Your task to perform on an android device: Open calendar and show me the first week of next month Image 0: 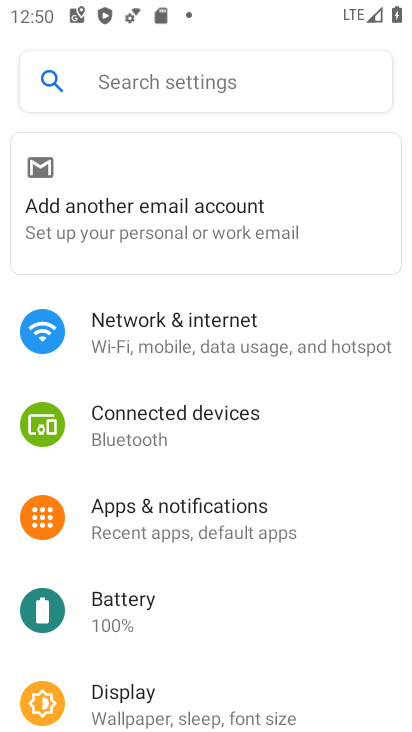
Step 0: press home button
Your task to perform on an android device: Open calendar and show me the first week of next month Image 1: 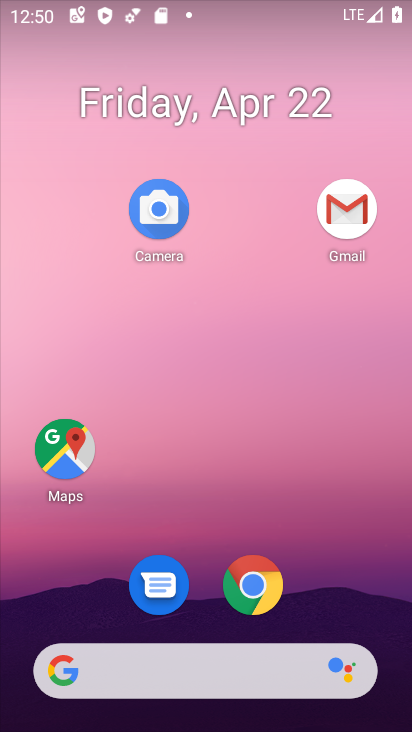
Step 1: drag from (317, 573) to (297, 162)
Your task to perform on an android device: Open calendar and show me the first week of next month Image 2: 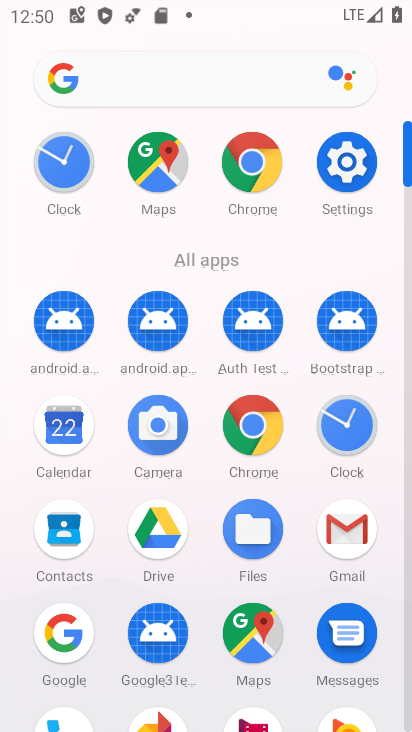
Step 2: click (71, 430)
Your task to perform on an android device: Open calendar and show me the first week of next month Image 3: 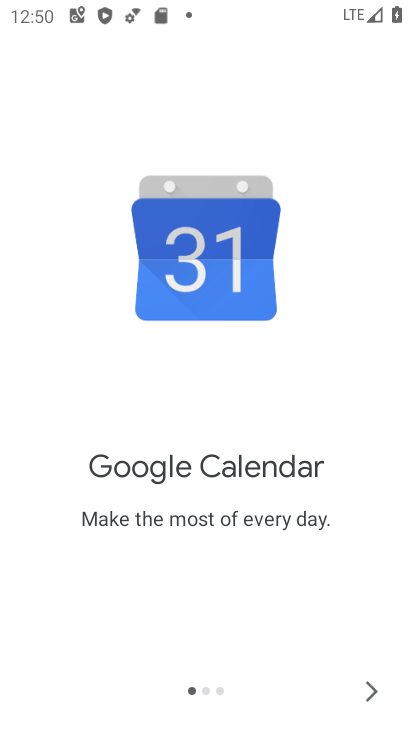
Step 3: click (366, 693)
Your task to perform on an android device: Open calendar and show me the first week of next month Image 4: 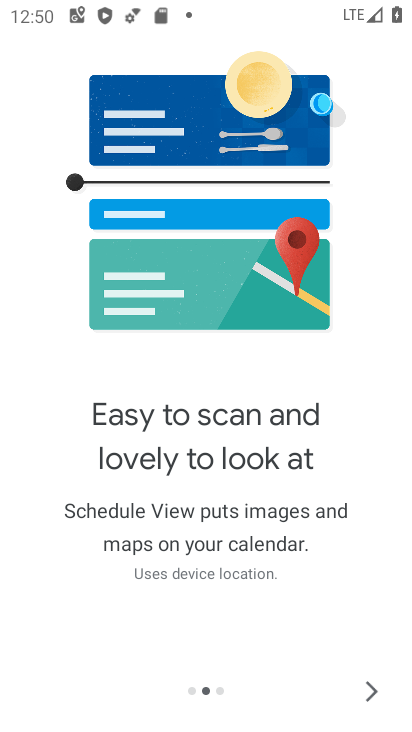
Step 4: click (366, 693)
Your task to perform on an android device: Open calendar and show me the first week of next month Image 5: 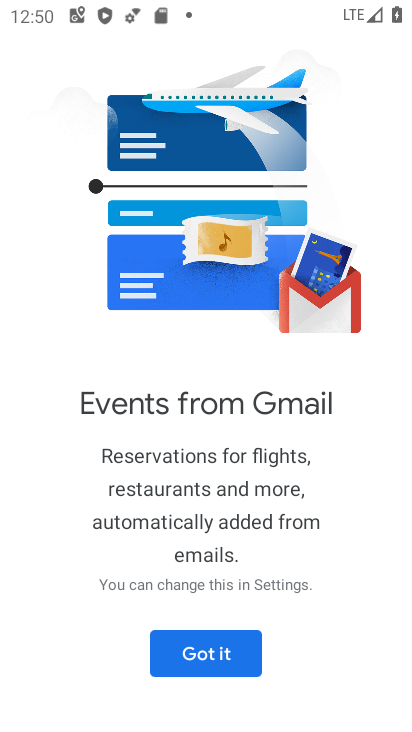
Step 5: click (221, 647)
Your task to perform on an android device: Open calendar and show me the first week of next month Image 6: 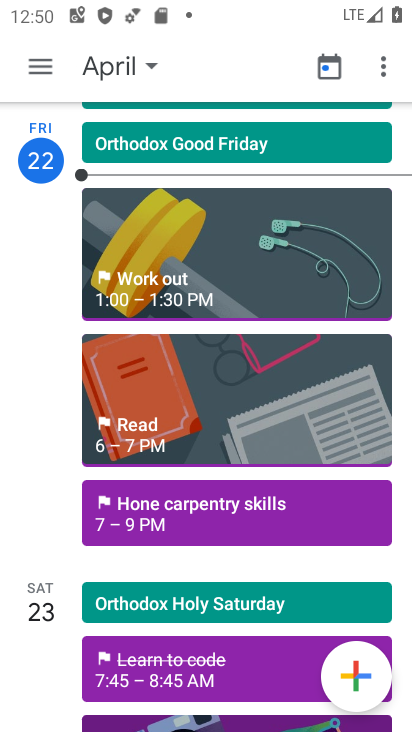
Step 6: click (46, 66)
Your task to perform on an android device: Open calendar and show me the first week of next month Image 7: 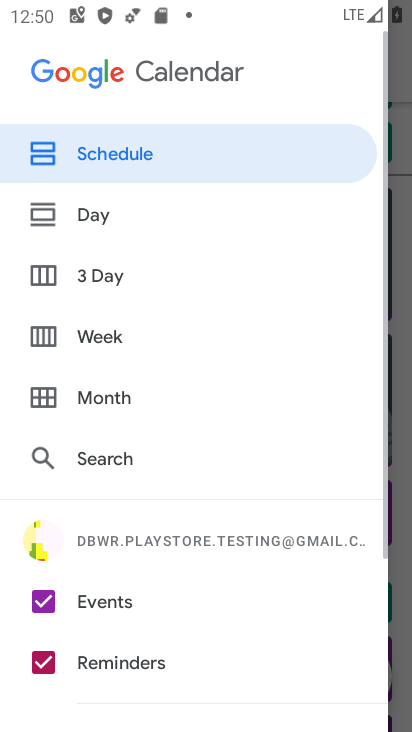
Step 7: click (105, 330)
Your task to perform on an android device: Open calendar and show me the first week of next month Image 8: 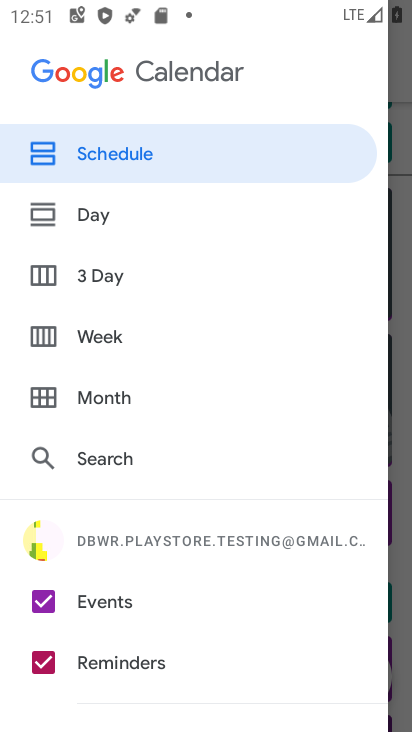
Step 8: click (105, 330)
Your task to perform on an android device: Open calendar and show me the first week of next month Image 9: 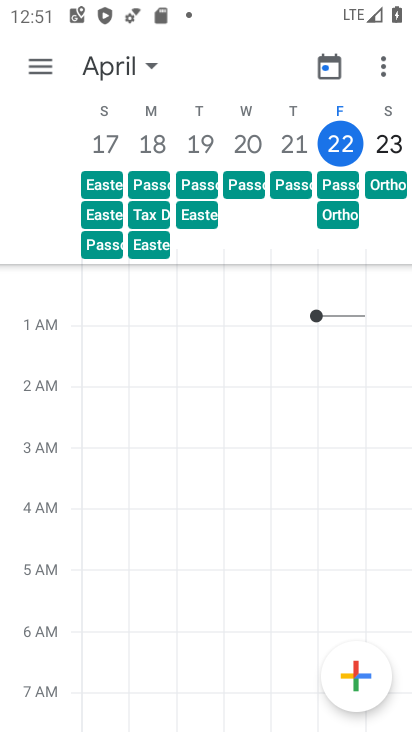
Step 9: task complete